Your task to perform on an android device: Is it going to rain this weekend? Image 0: 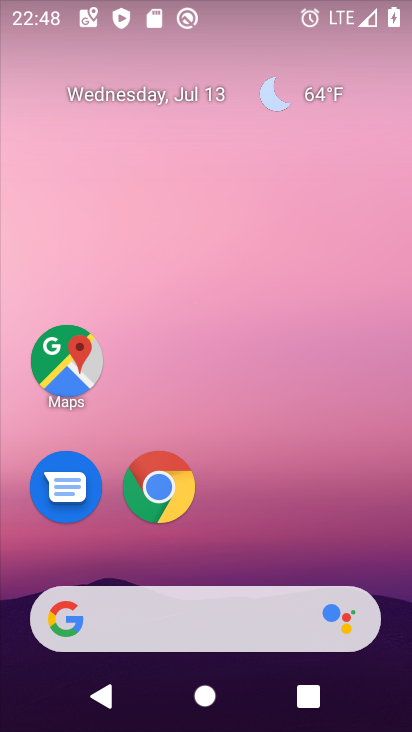
Step 0: drag from (273, 442) to (310, 18)
Your task to perform on an android device: Is it going to rain this weekend? Image 1: 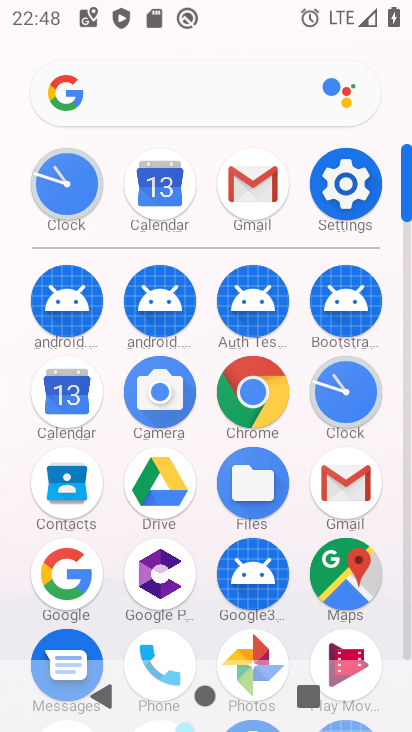
Step 1: click (140, 99)
Your task to perform on an android device: Is it going to rain this weekend? Image 2: 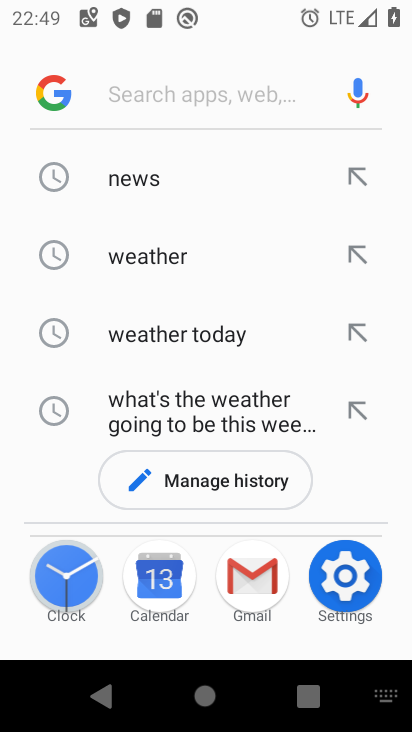
Step 2: click (160, 261)
Your task to perform on an android device: Is it going to rain this weekend? Image 3: 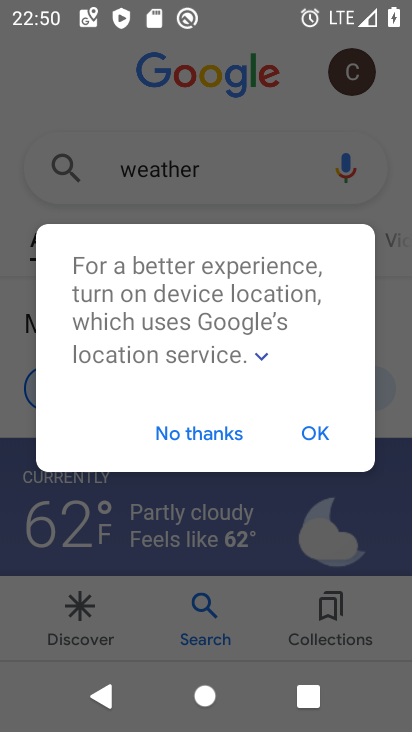
Step 3: click (301, 427)
Your task to perform on an android device: Is it going to rain this weekend? Image 4: 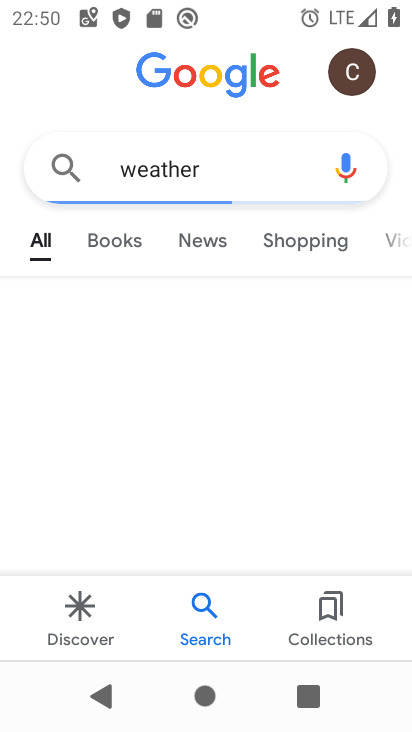
Step 4: click (320, 399)
Your task to perform on an android device: Is it going to rain this weekend? Image 5: 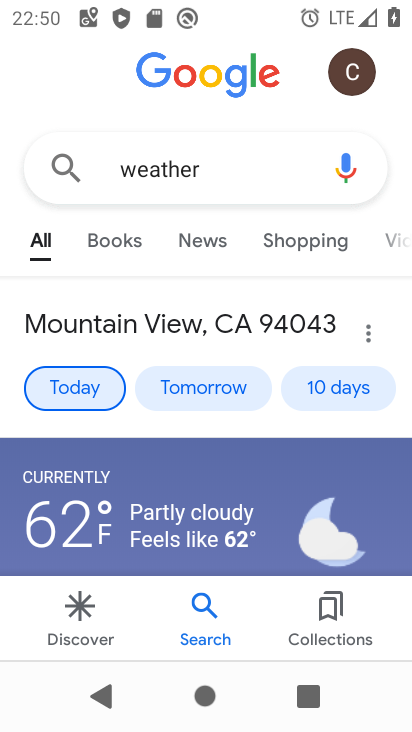
Step 5: click (294, 382)
Your task to perform on an android device: Is it going to rain this weekend? Image 6: 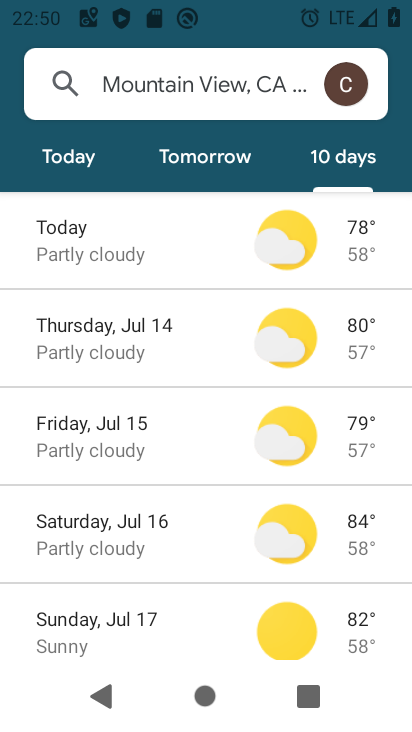
Step 6: task complete